Your task to perform on an android device: Go to wifi settings Image 0: 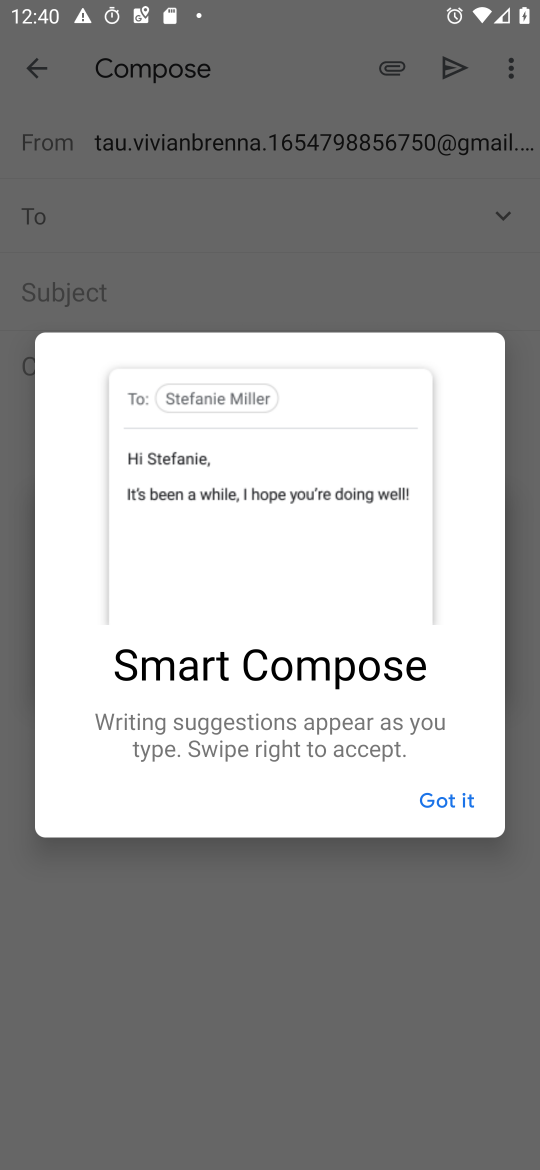
Step 0: press home button
Your task to perform on an android device: Go to wifi settings Image 1: 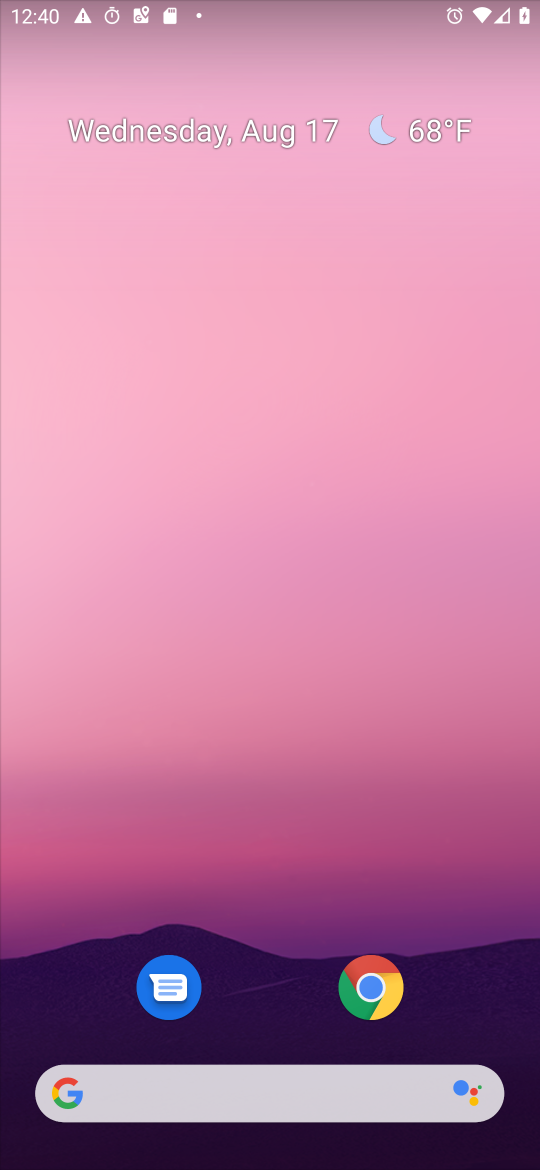
Step 1: drag from (89, 976) to (182, 563)
Your task to perform on an android device: Go to wifi settings Image 2: 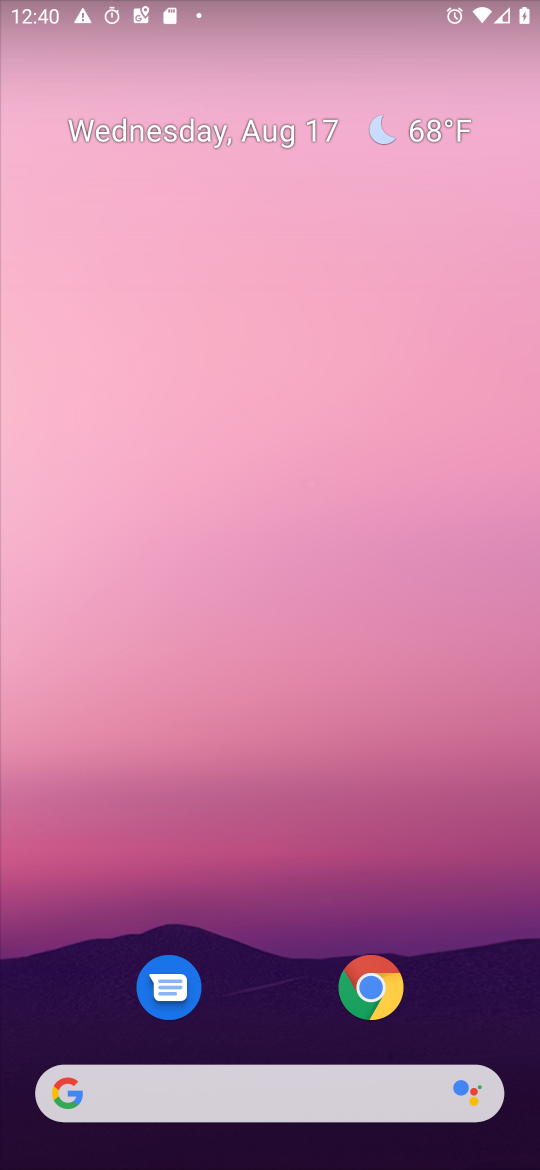
Step 2: drag from (18, 1100) to (173, 505)
Your task to perform on an android device: Go to wifi settings Image 3: 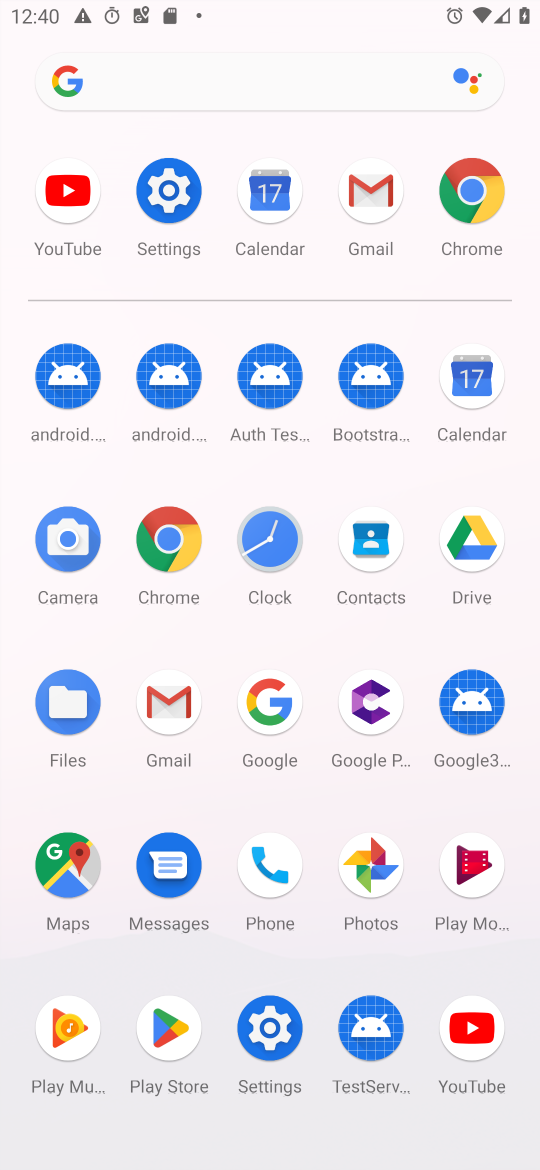
Step 3: click (270, 1028)
Your task to perform on an android device: Go to wifi settings Image 4: 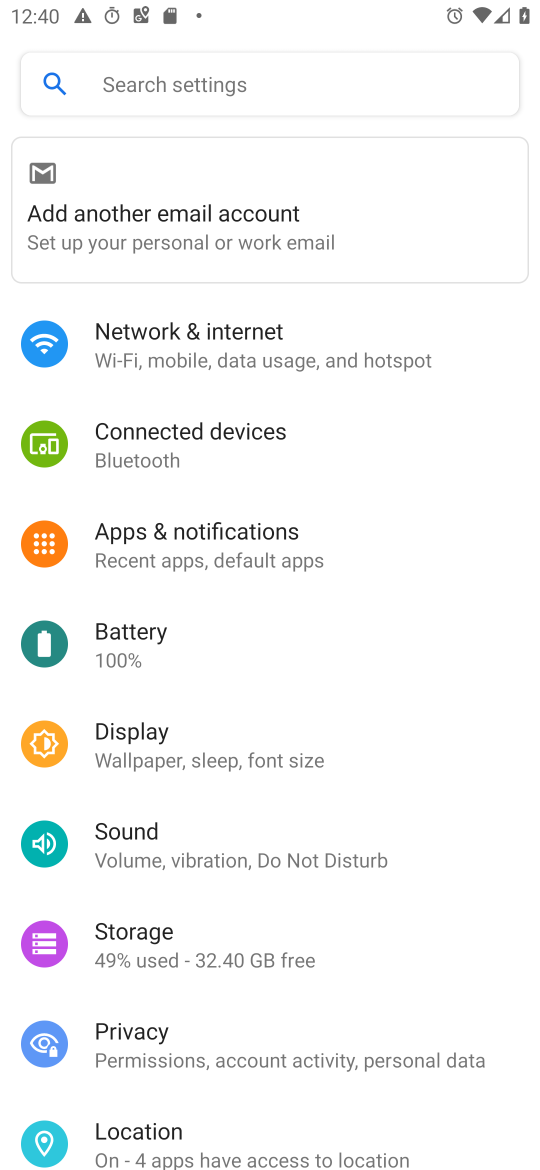
Step 4: click (169, 349)
Your task to perform on an android device: Go to wifi settings Image 5: 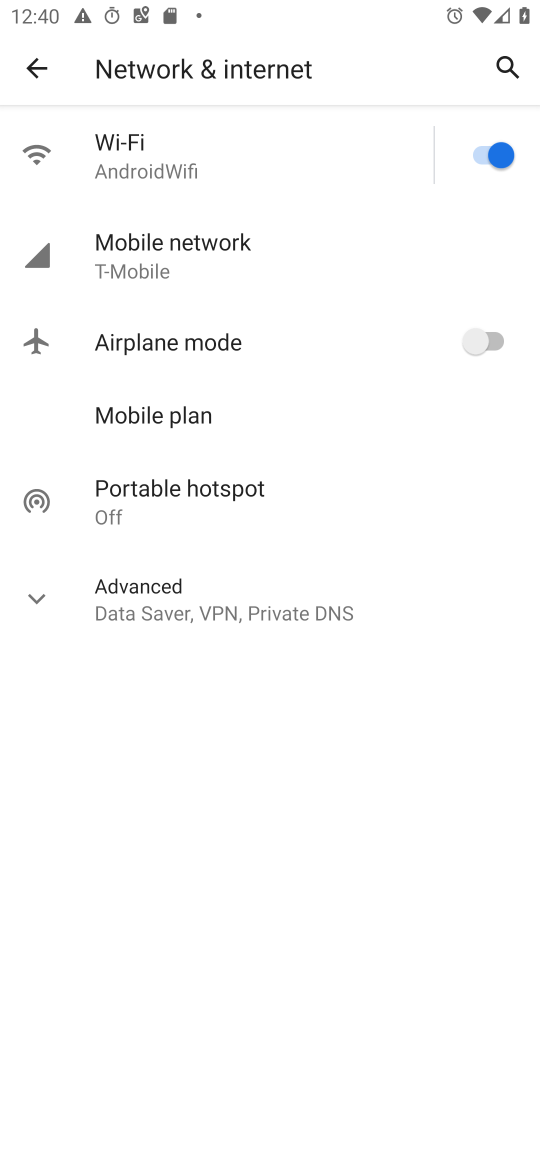
Step 5: task complete